Your task to perform on an android device: Set an alarm for 7am Image 0: 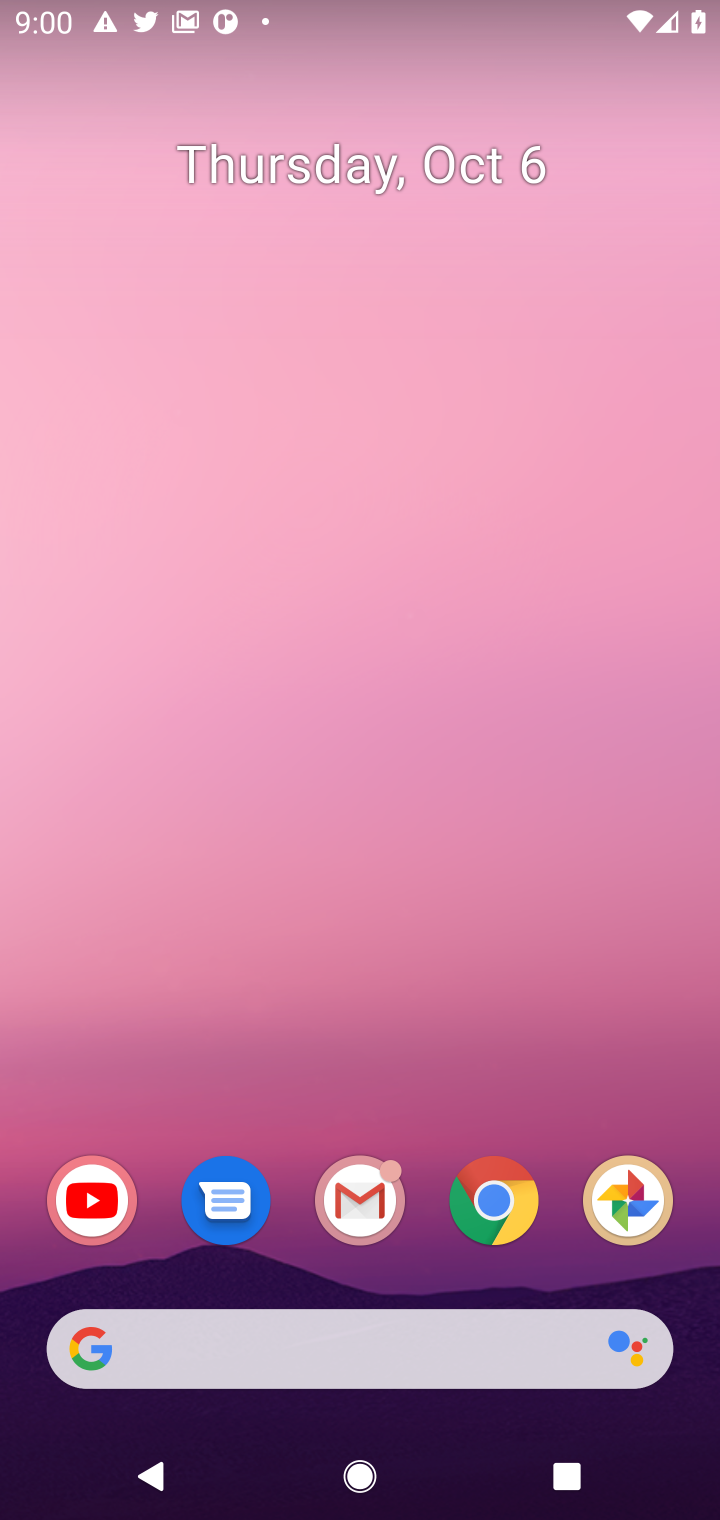
Step 0: click (503, 1205)
Your task to perform on an android device: Set an alarm for 7am Image 1: 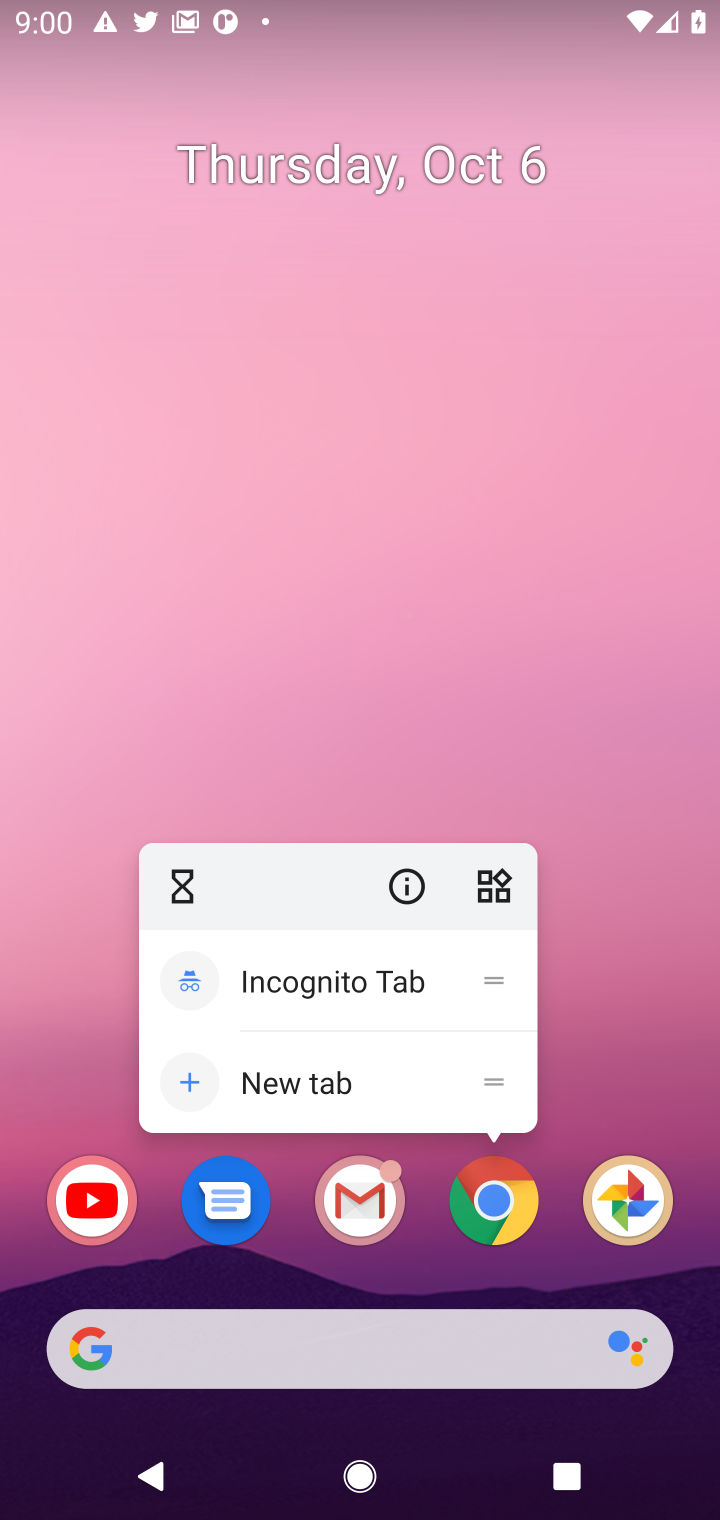
Step 1: press home button
Your task to perform on an android device: Set an alarm for 7am Image 2: 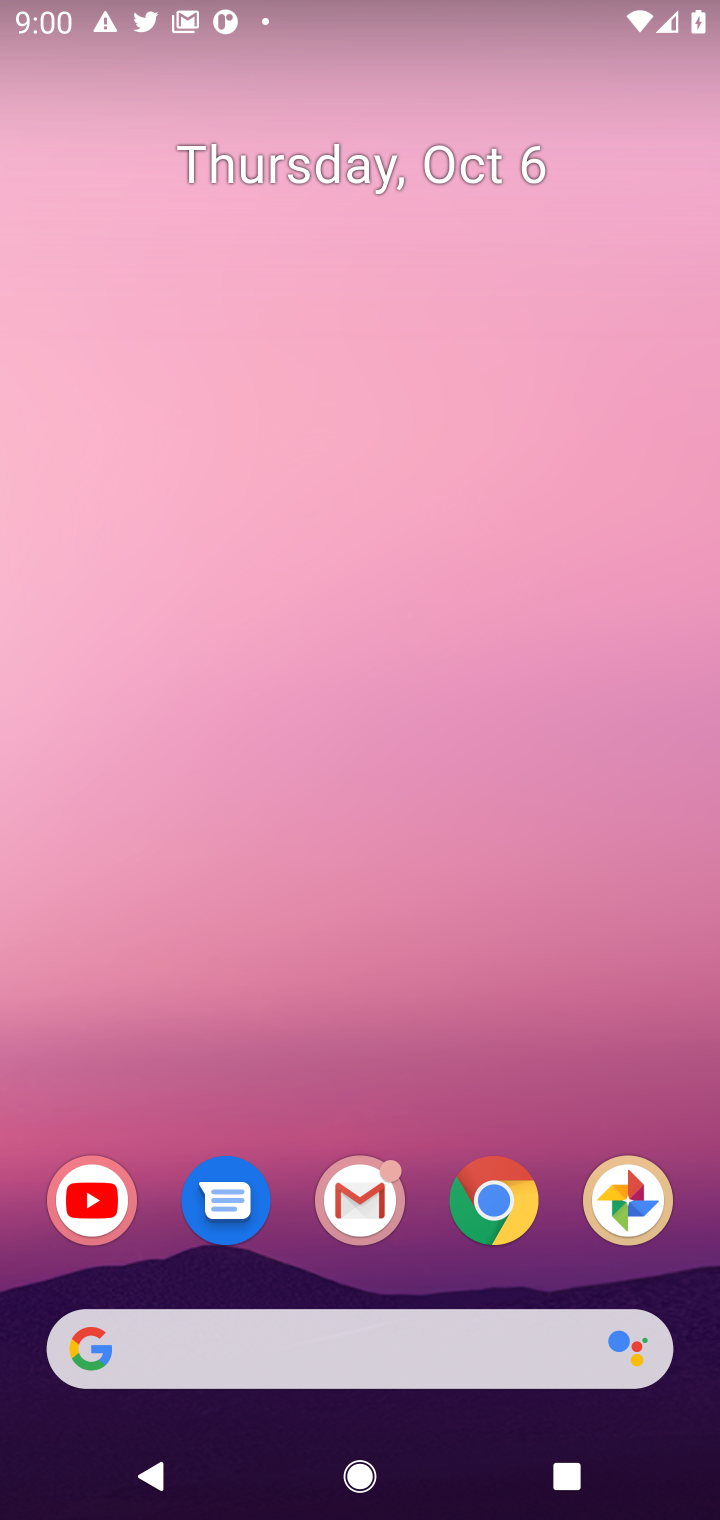
Step 2: press home button
Your task to perform on an android device: Set an alarm for 7am Image 3: 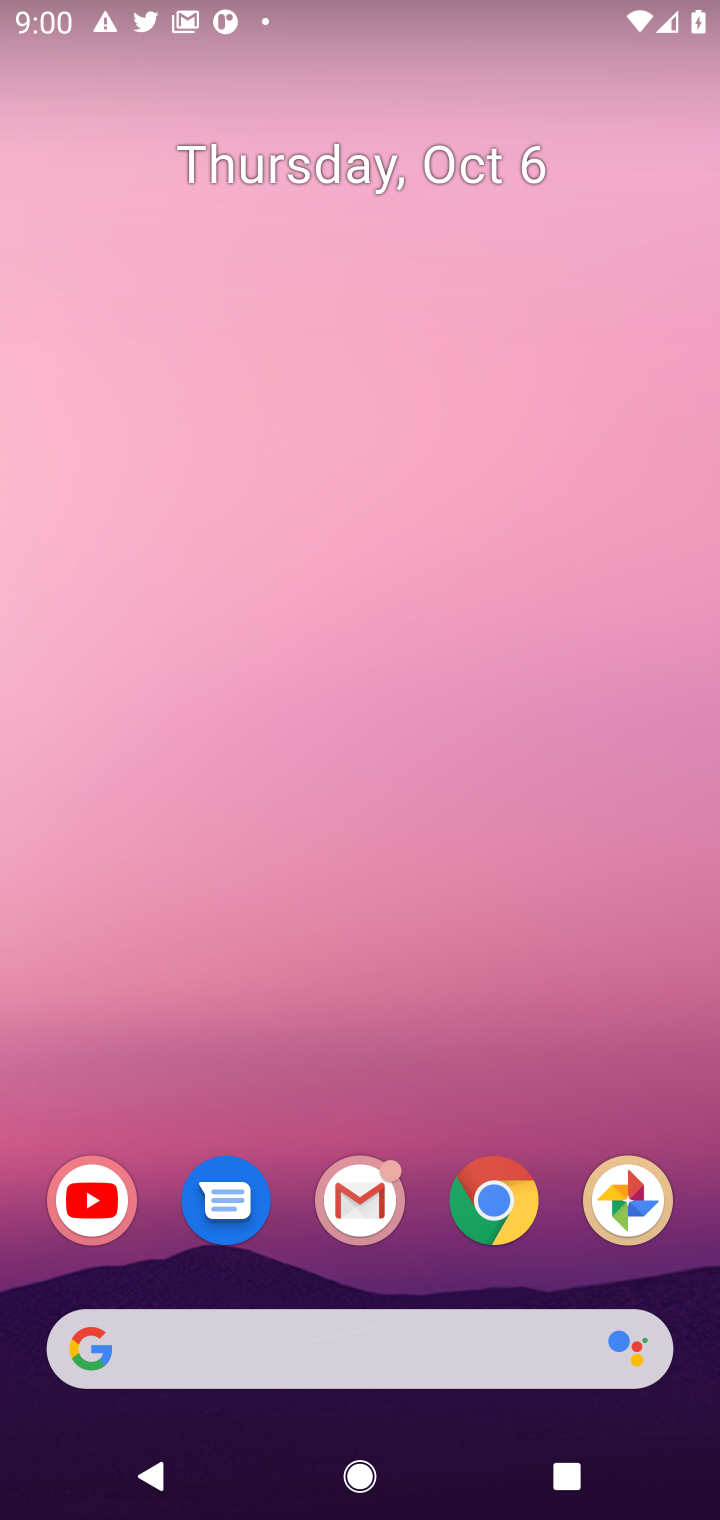
Step 3: click (492, 1210)
Your task to perform on an android device: Set an alarm for 7am Image 4: 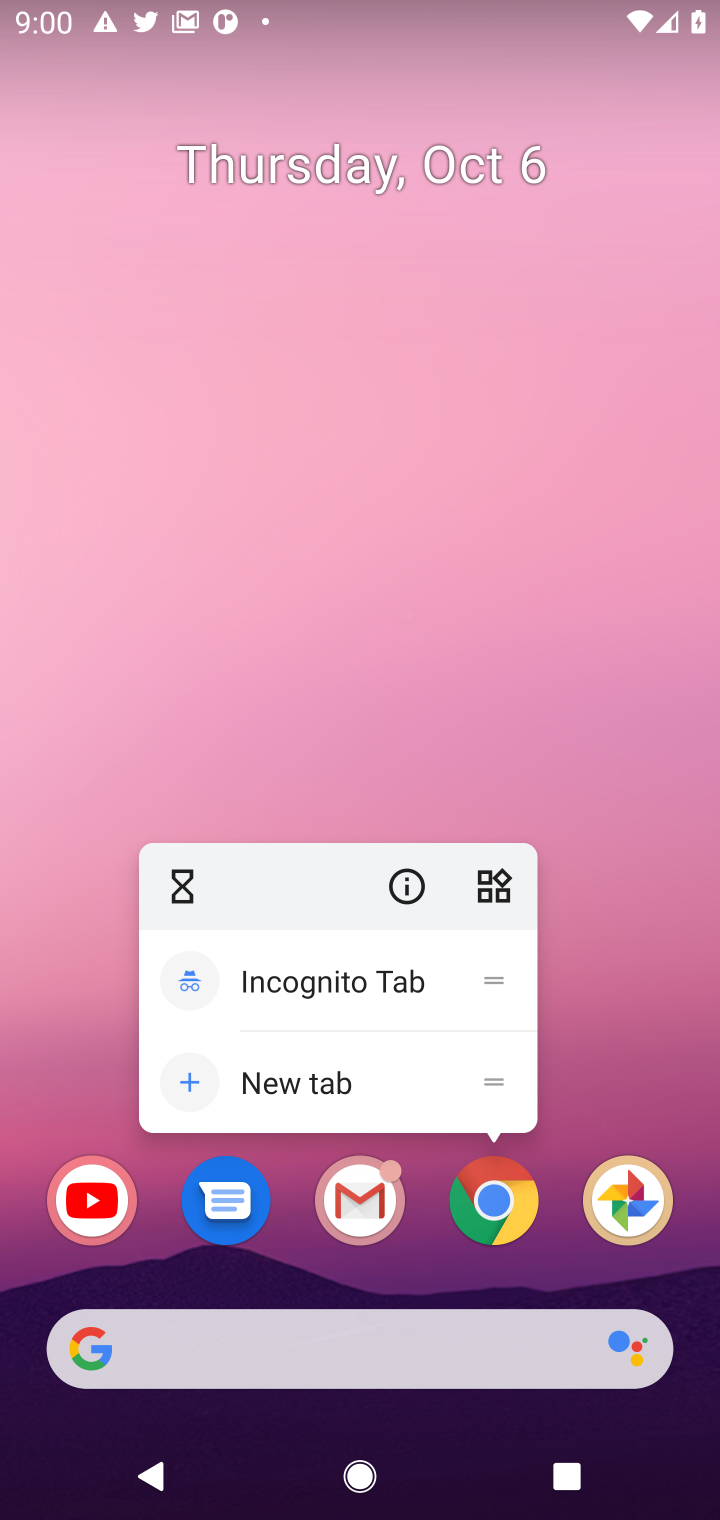
Step 4: press back button
Your task to perform on an android device: Set an alarm for 7am Image 5: 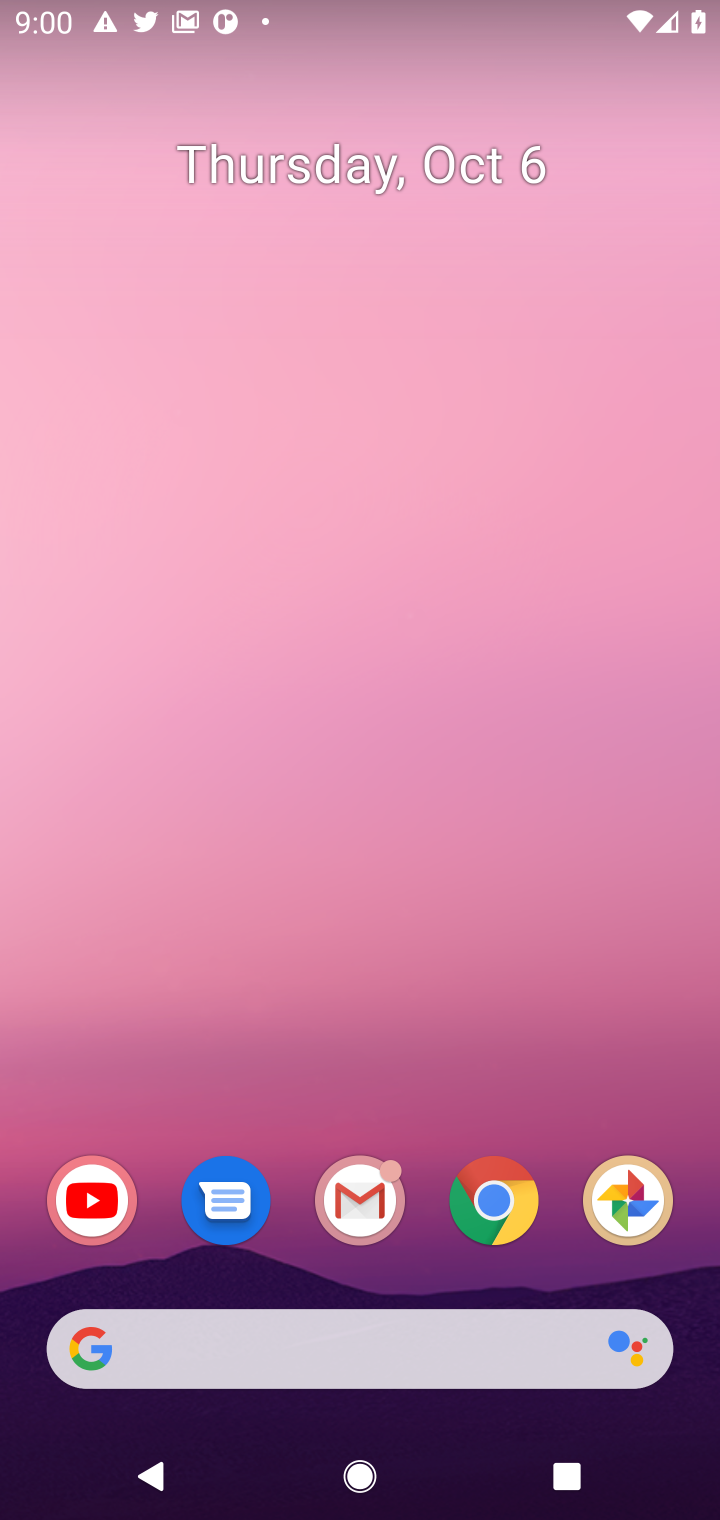
Step 5: press back button
Your task to perform on an android device: Set an alarm for 7am Image 6: 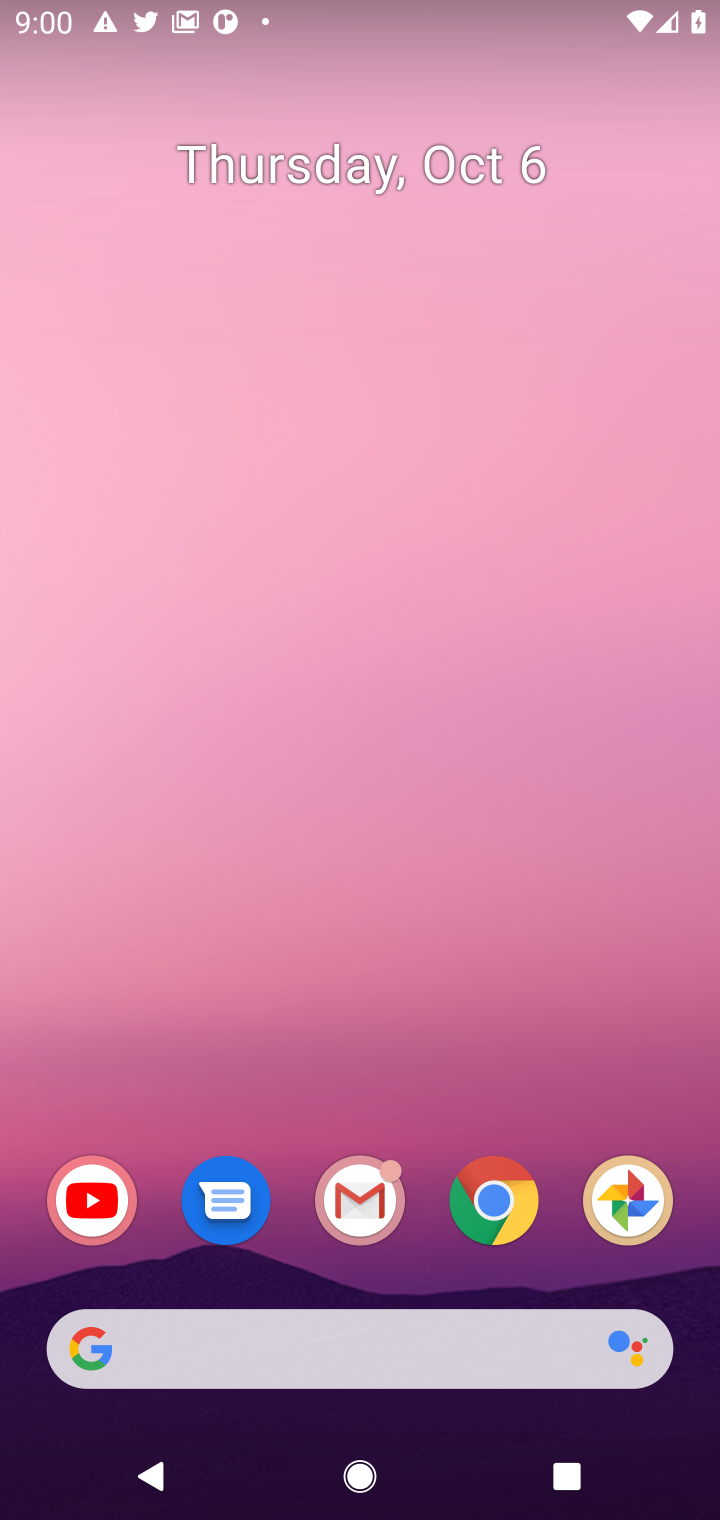
Step 6: press home button
Your task to perform on an android device: Set an alarm for 7am Image 7: 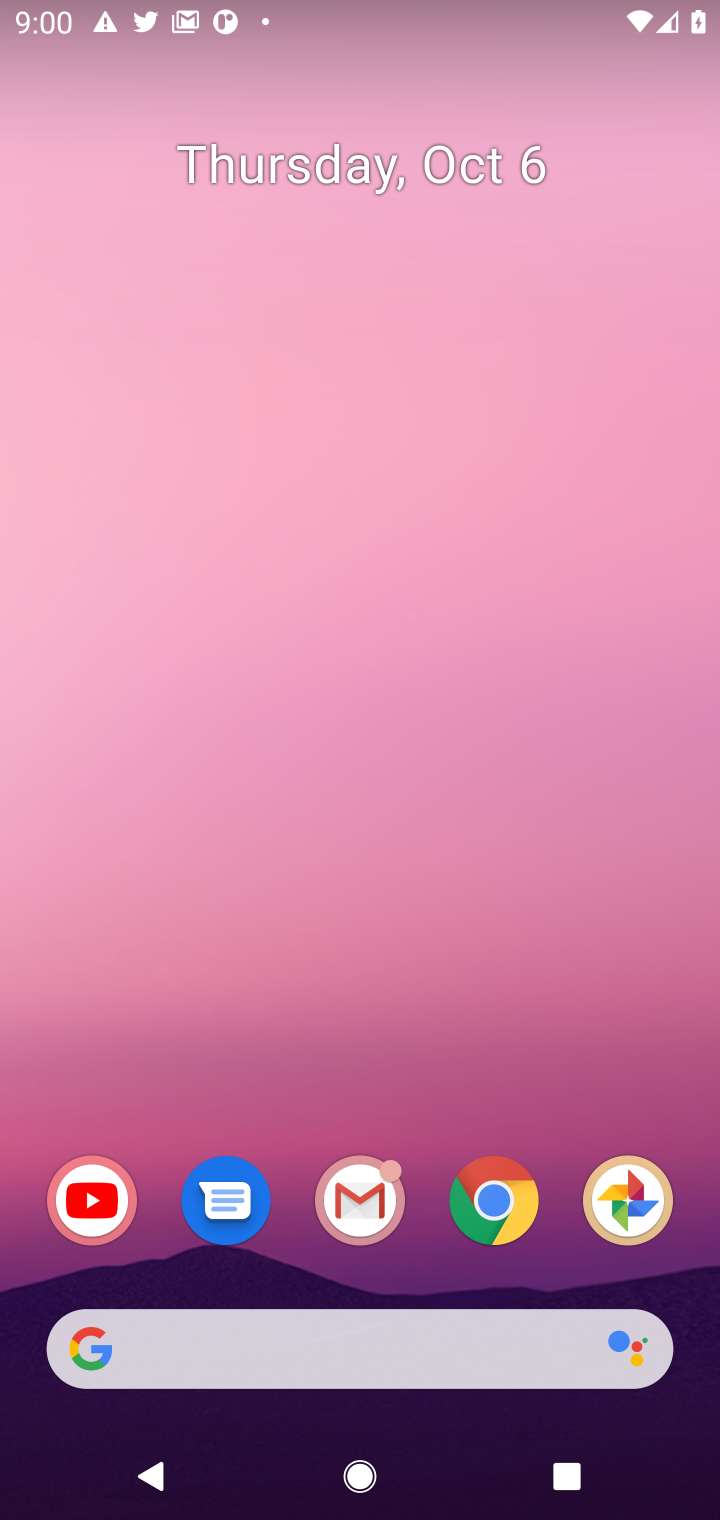
Step 7: click (503, 1223)
Your task to perform on an android device: Set an alarm for 7am Image 8: 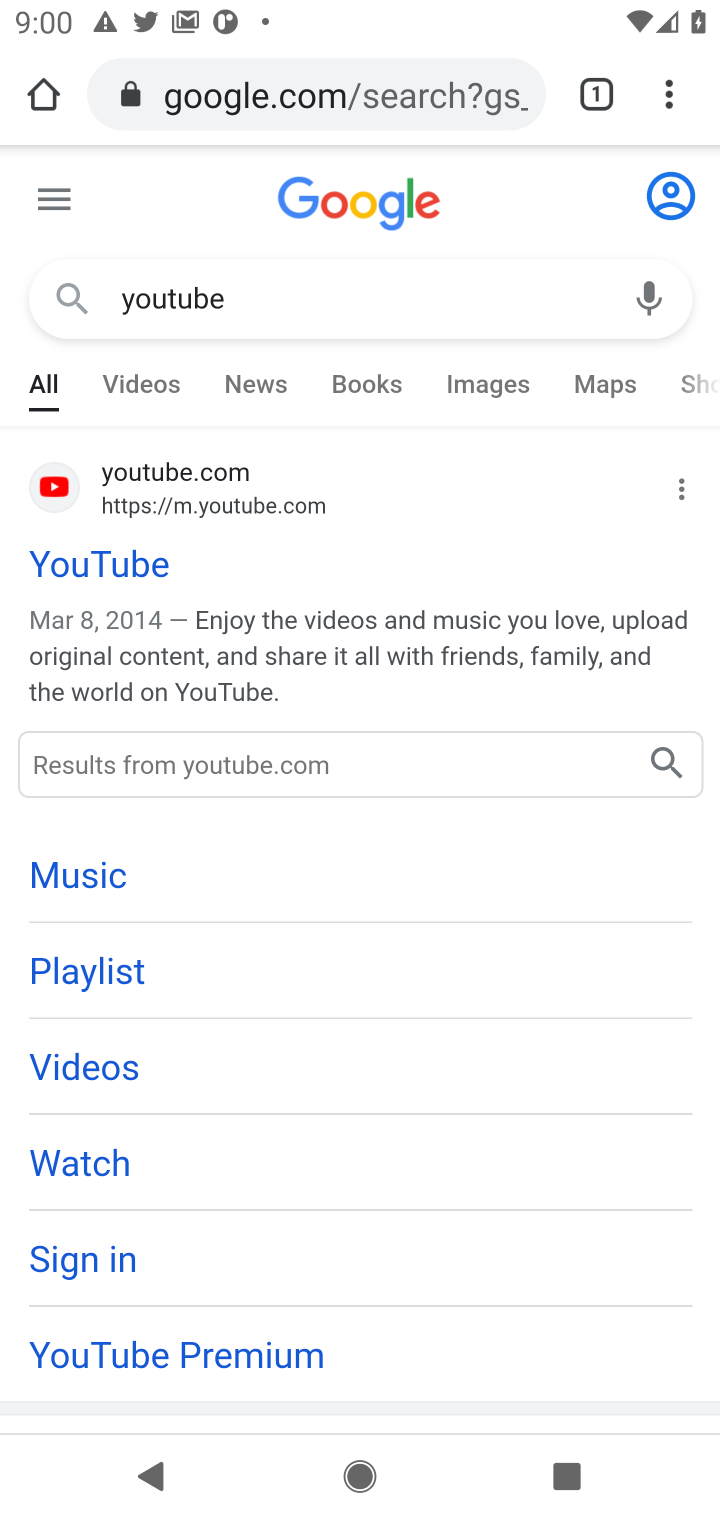
Step 8: click (422, 89)
Your task to perform on an android device: Set an alarm for 7am Image 9: 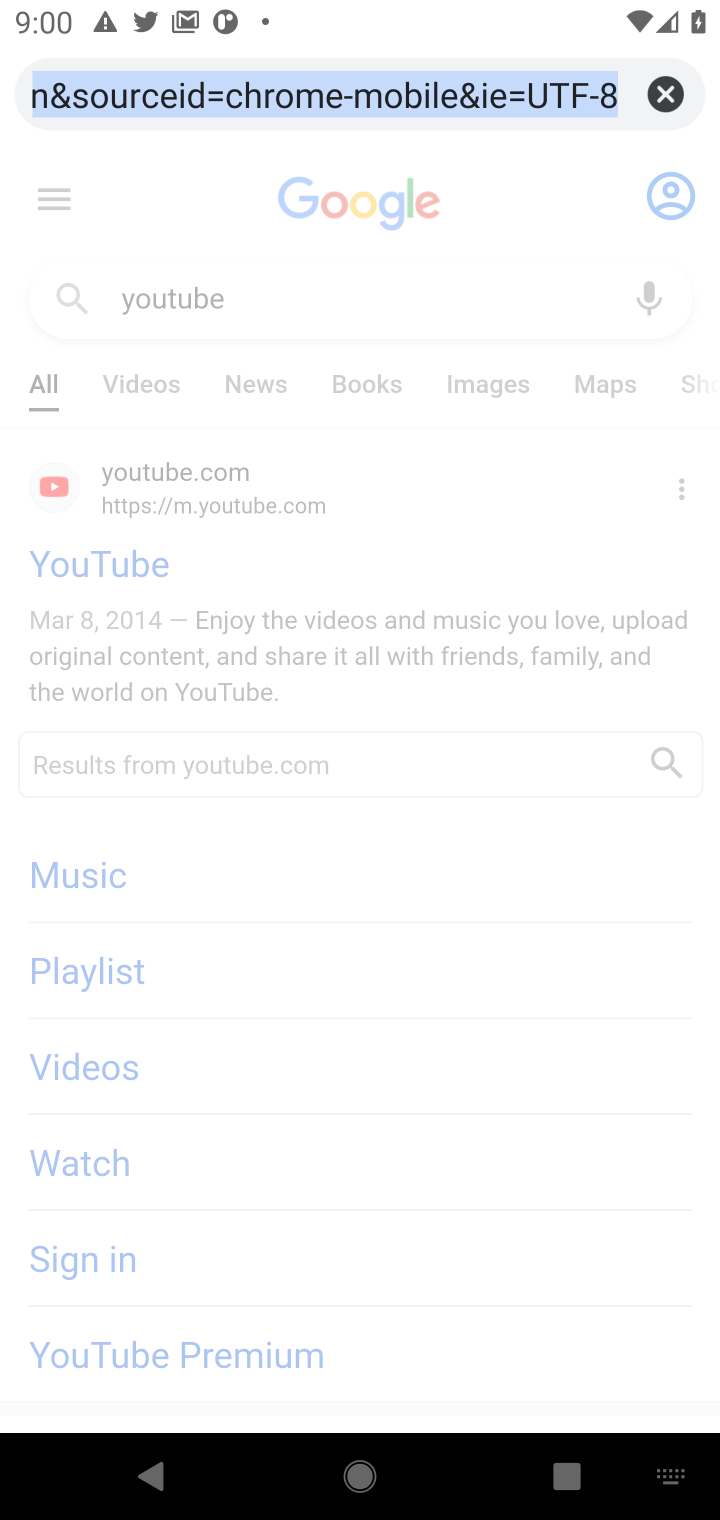
Step 9: click (669, 93)
Your task to perform on an android device: Set an alarm for 7am Image 10: 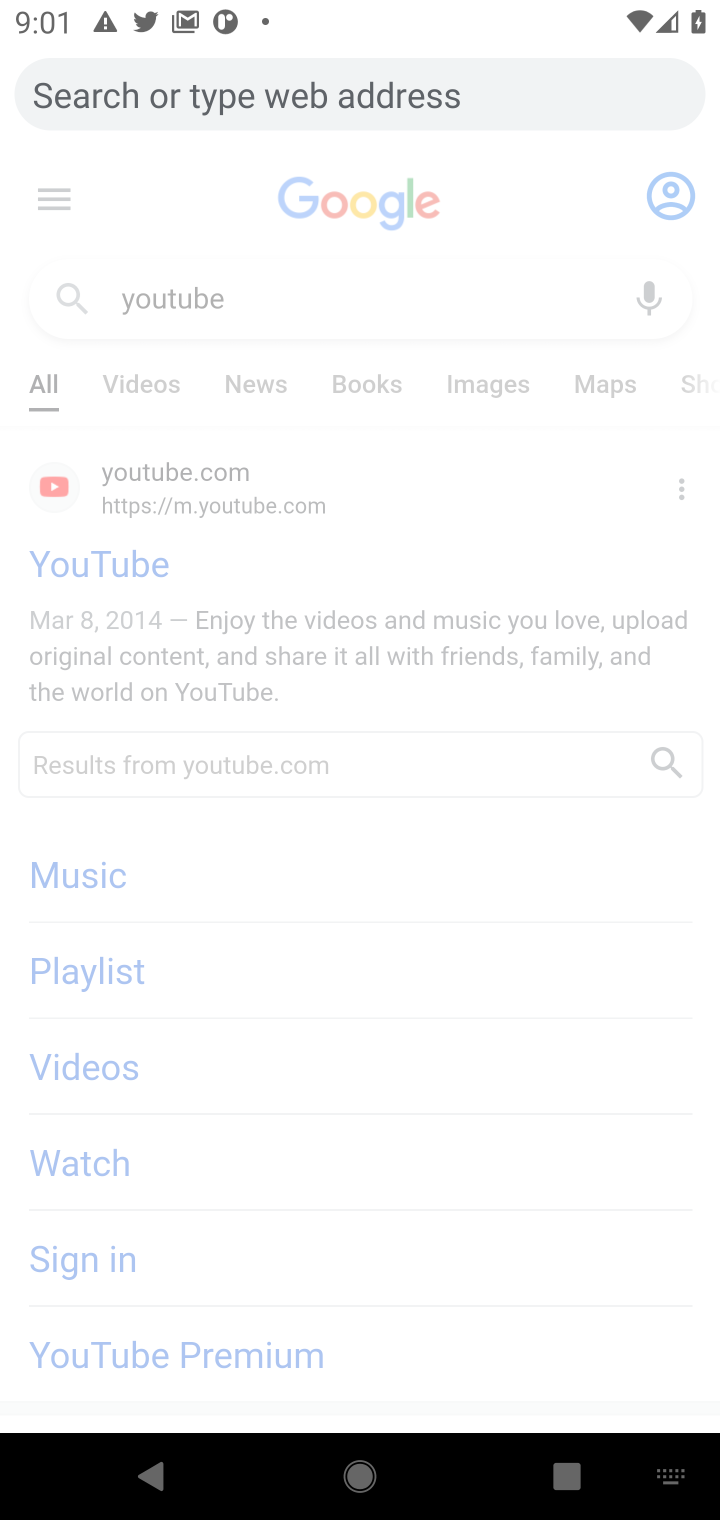
Step 10: type "set an alarm for 7am"
Your task to perform on an android device: Set an alarm for 7am Image 11: 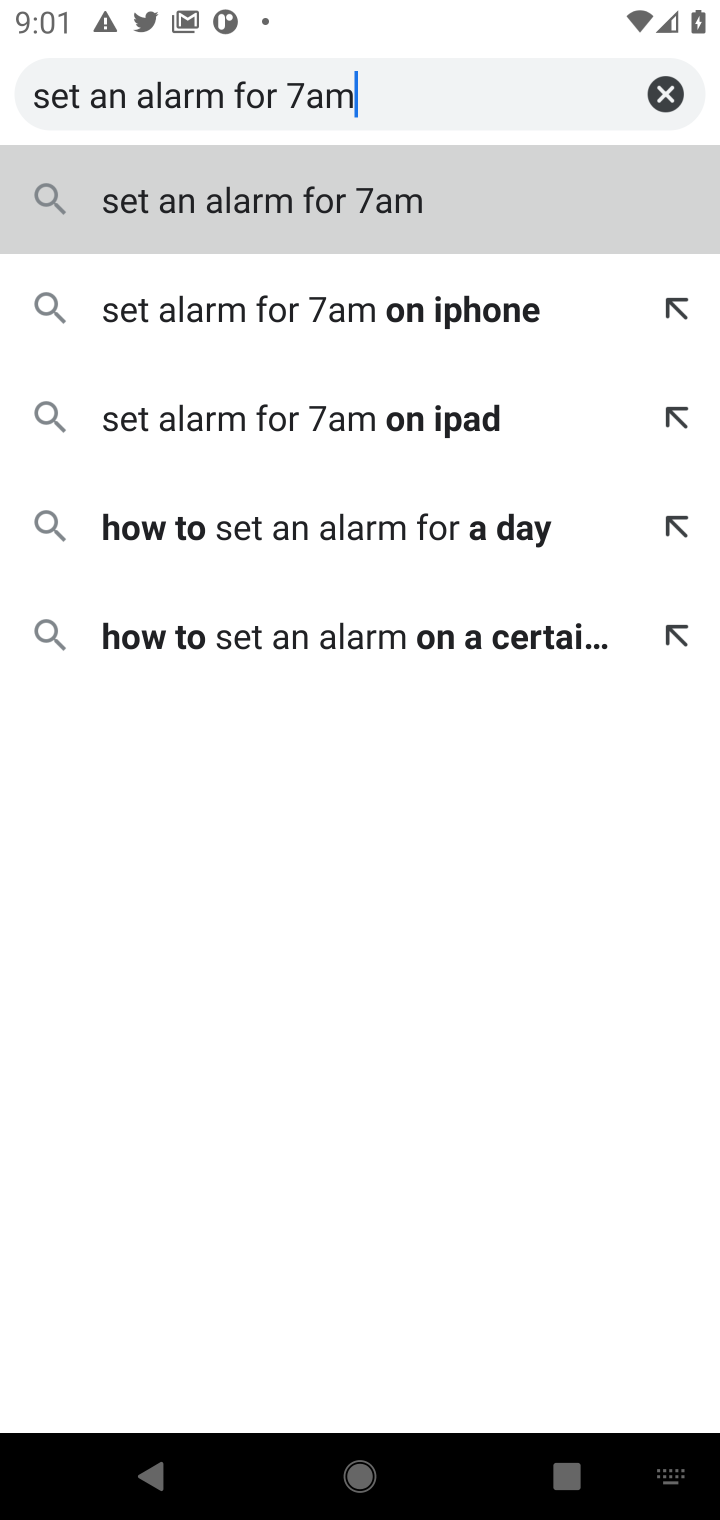
Step 11: click (389, 204)
Your task to perform on an android device: Set an alarm for 7am Image 12: 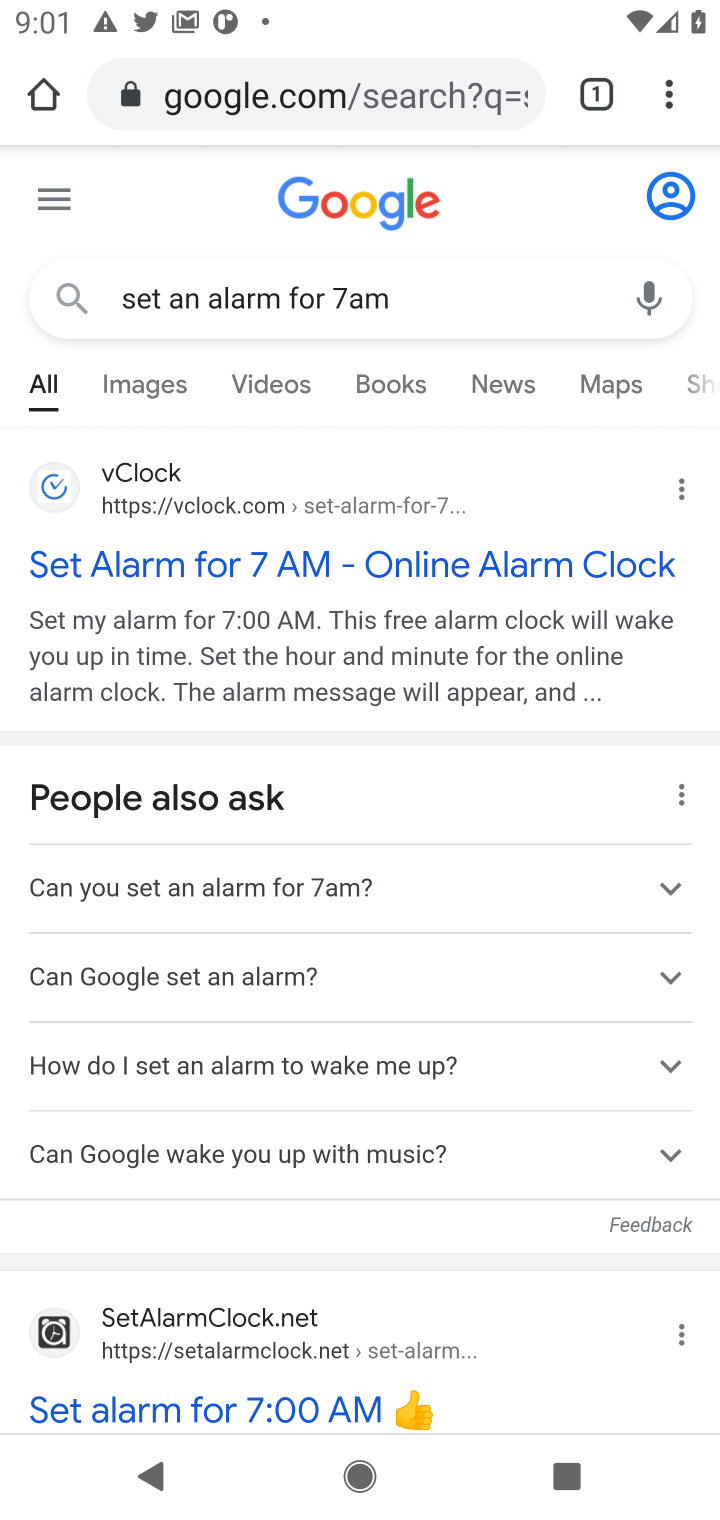
Step 12: click (166, 573)
Your task to perform on an android device: Set an alarm for 7am Image 13: 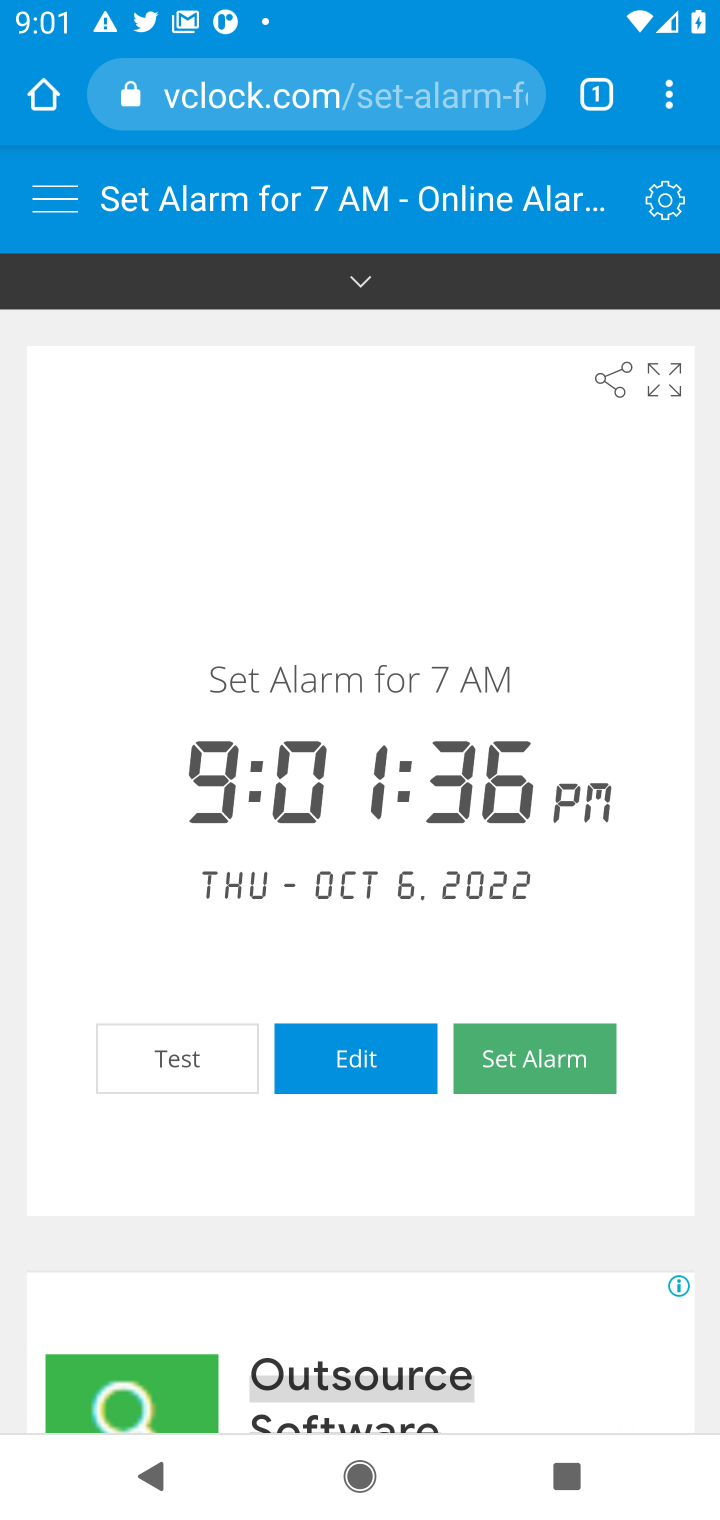
Step 13: drag from (677, 893) to (522, 1019)
Your task to perform on an android device: Set an alarm for 7am Image 14: 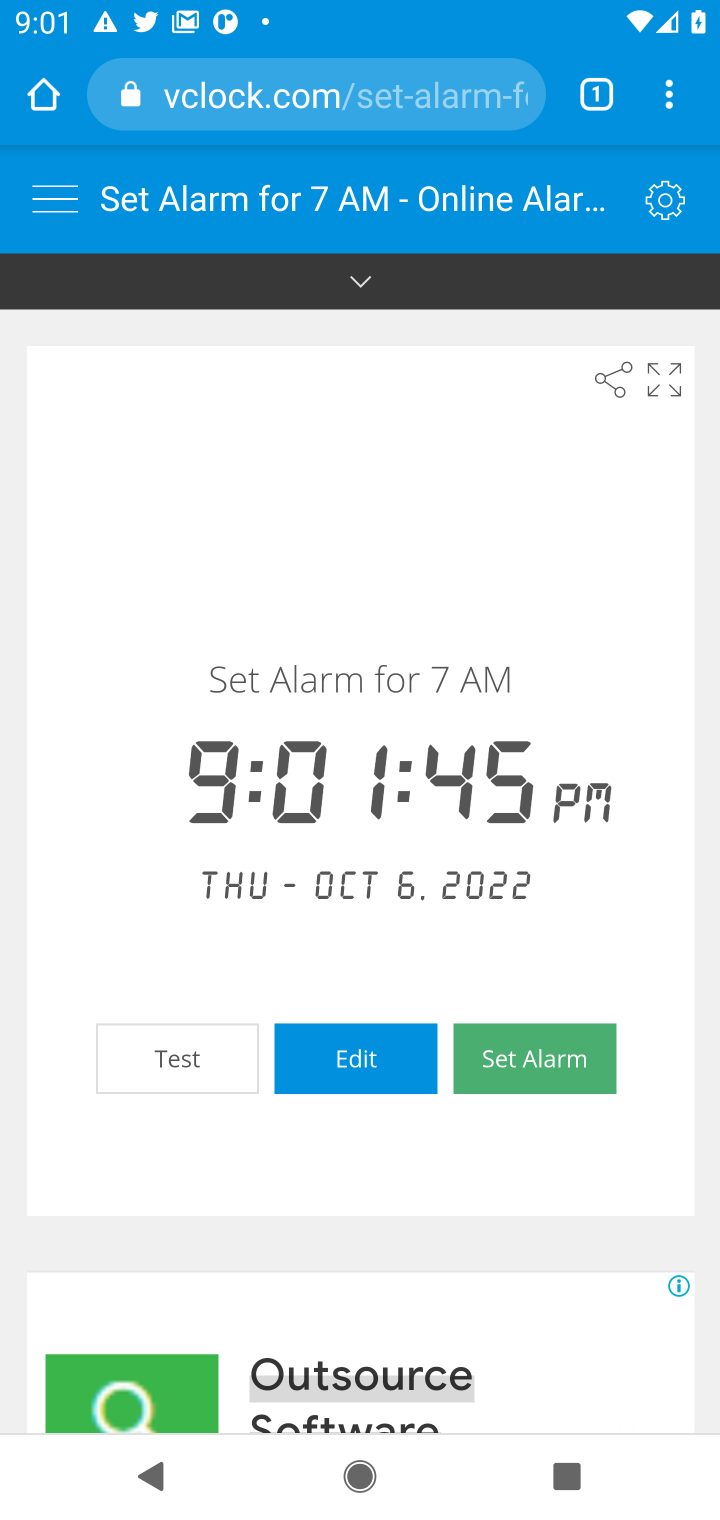
Step 14: click (528, 1070)
Your task to perform on an android device: Set an alarm for 7am Image 15: 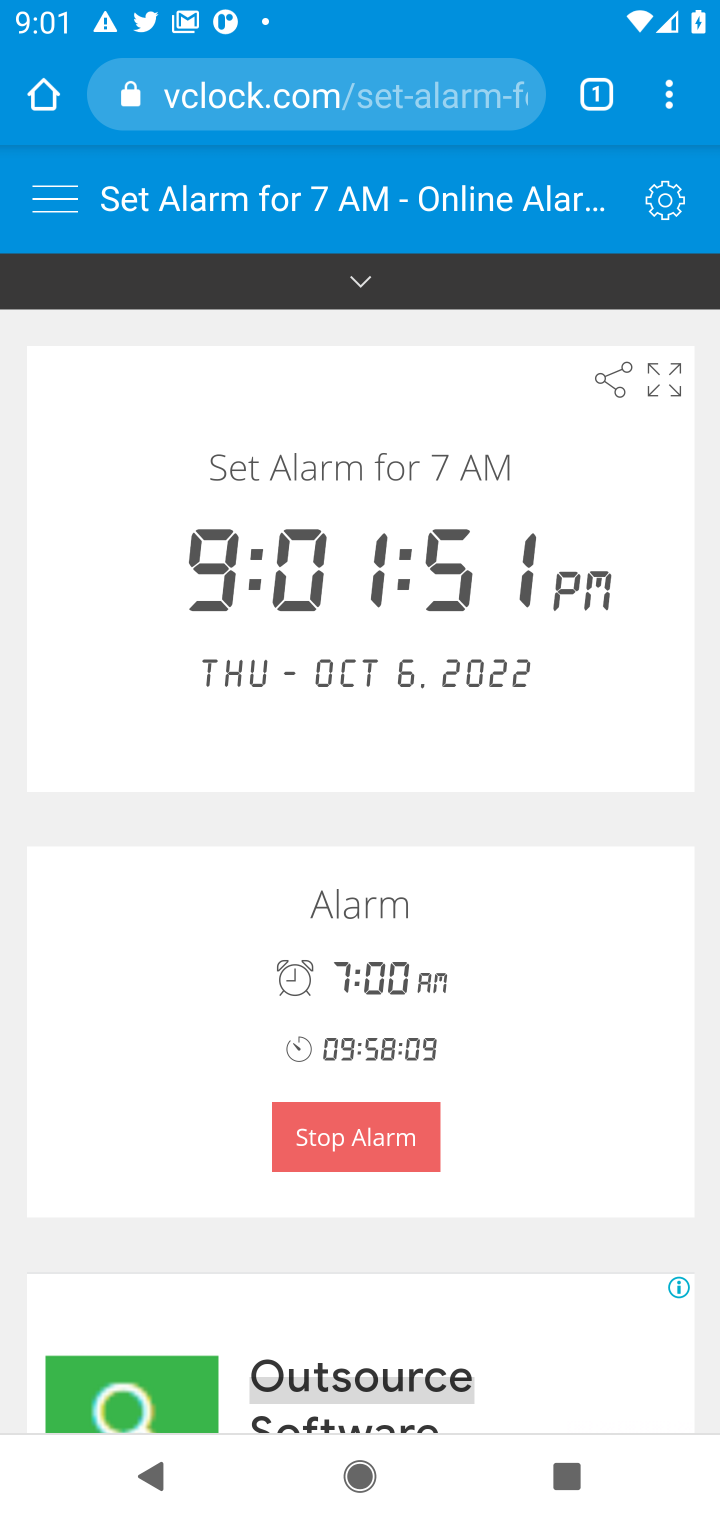
Step 15: click (348, 1151)
Your task to perform on an android device: Set an alarm for 7am Image 16: 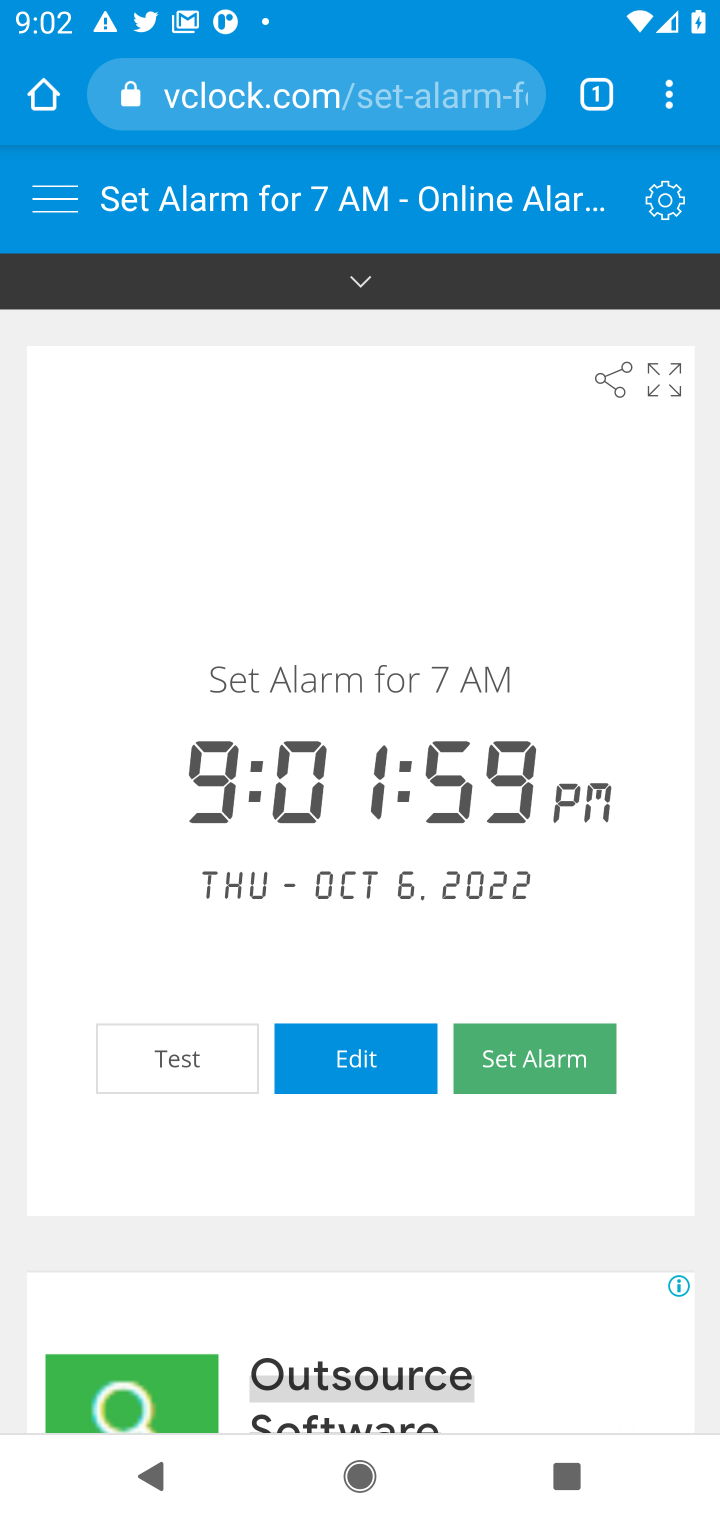
Step 16: click (378, 1084)
Your task to perform on an android device: Set an alarm for 7am Image 17: 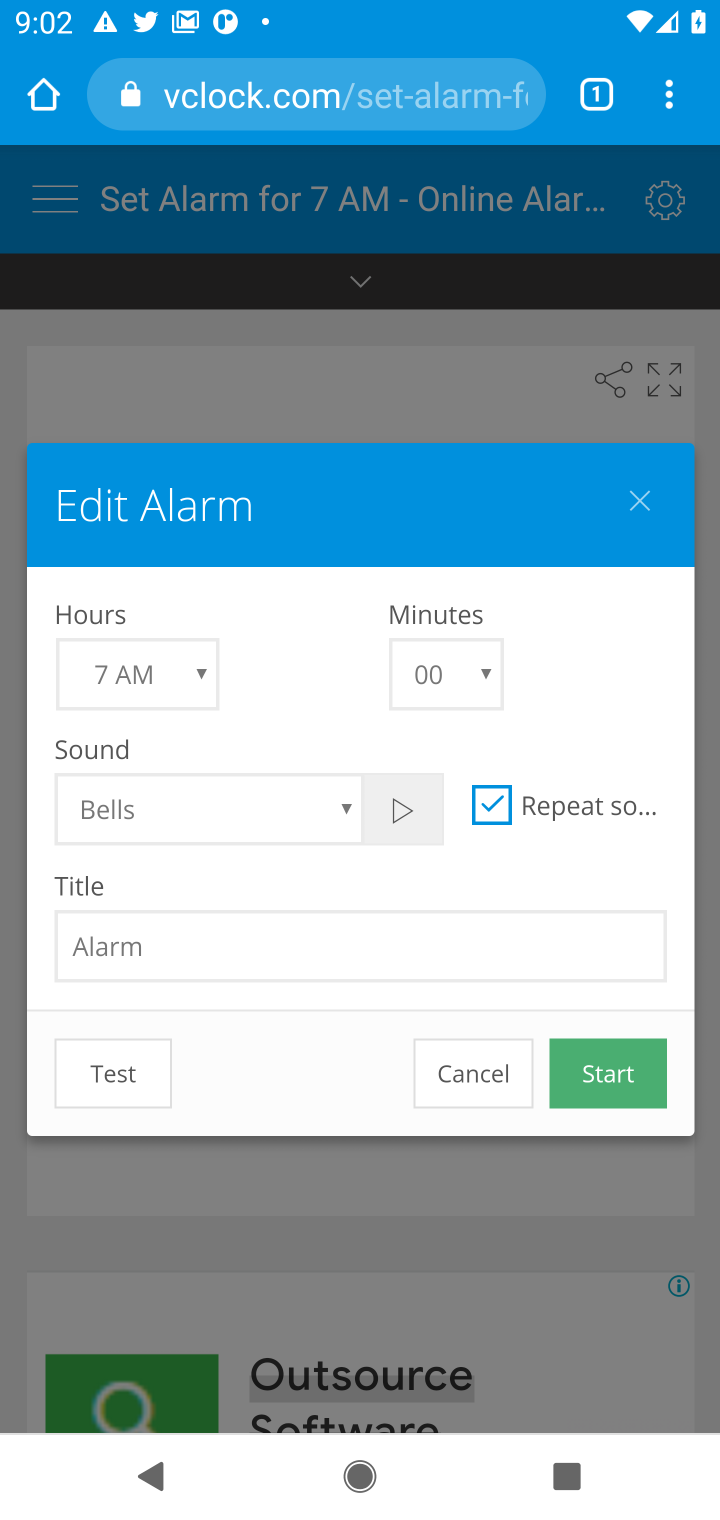
Step 17: click (614, 1079)
Your task to perform on an android device: Set an alarm for 7am Image 18: 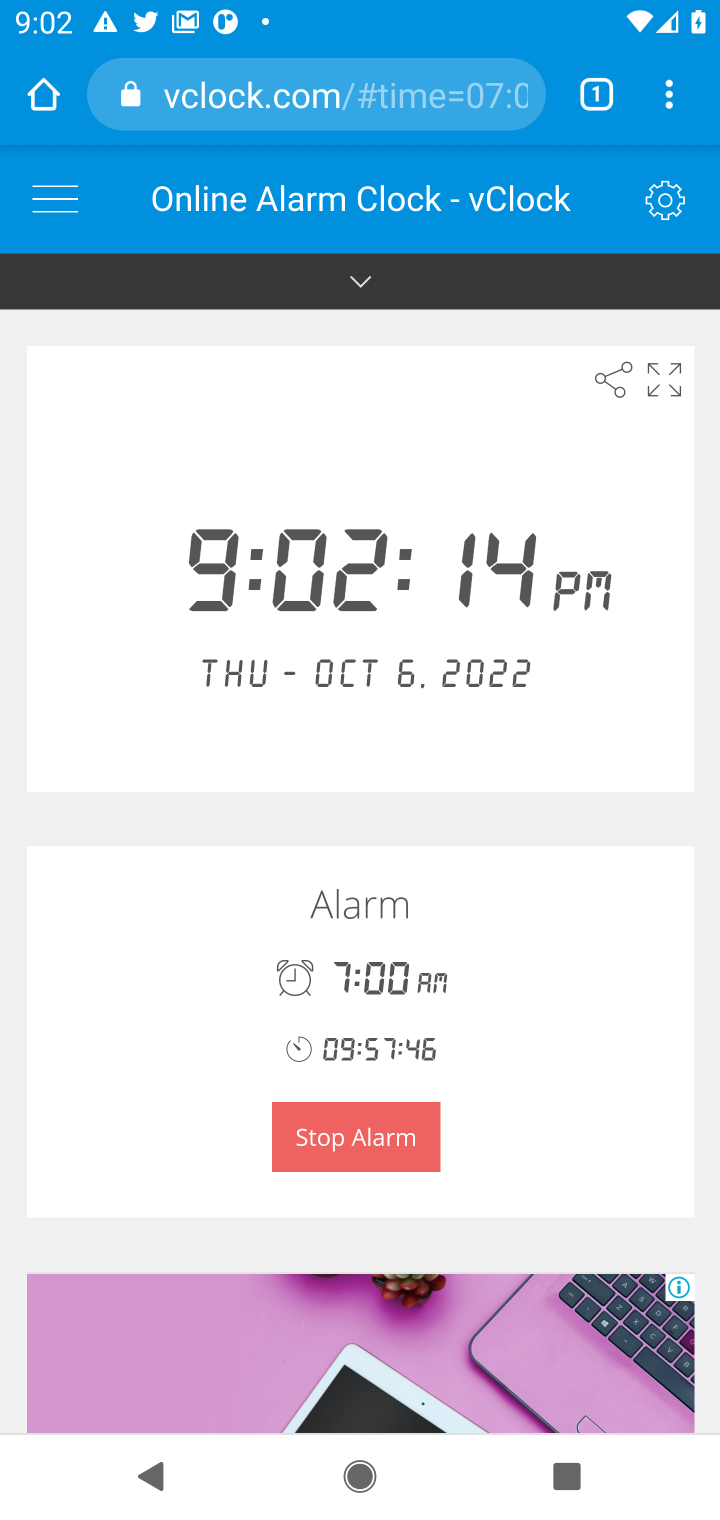
Step 18: task complete